Your task to perform on an android device: toggle pop-ups in chrome Image 0: 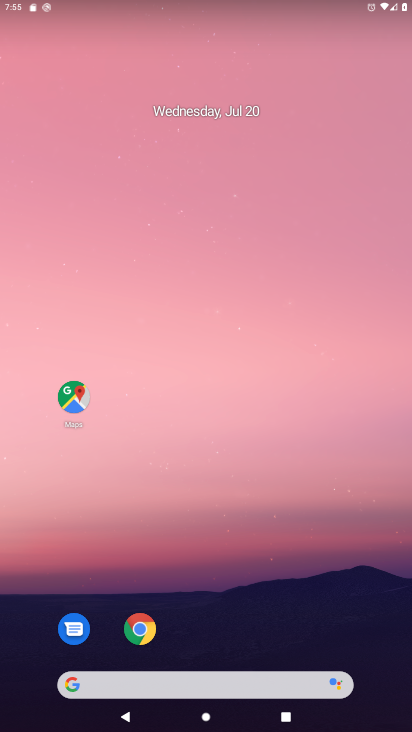
Step 0: click (146, 629)
Your task to perform on an android device: toggle pop-ups in chrome Image 1: 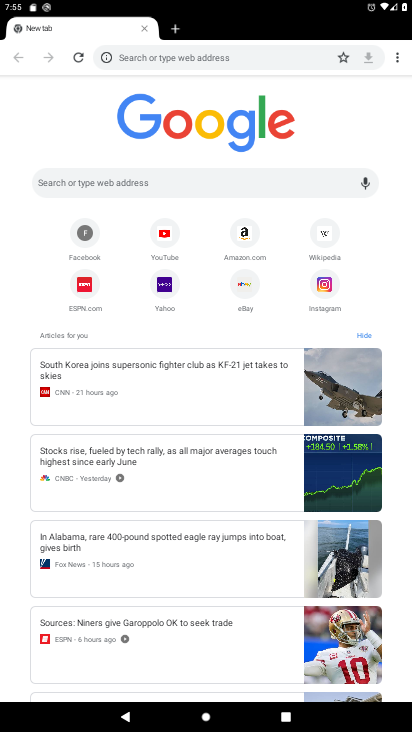
Step 1: click (398, 54)
Your task to perform on an android device: toggle pop-ups in chrome Image 2: 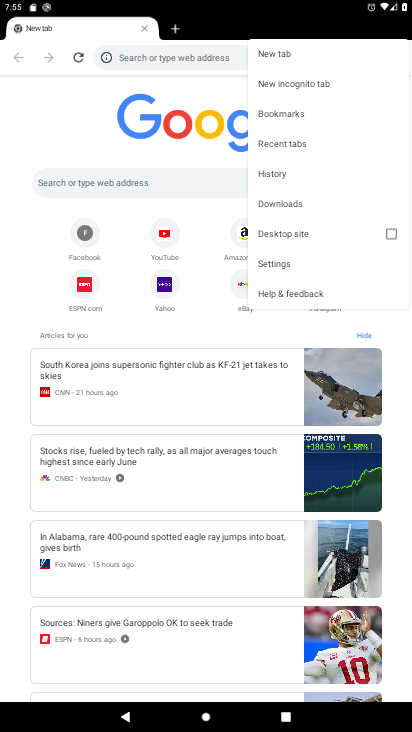
Step 2: click (272, 251)
Your task to perform on an android device: toggle pop-ups in chrome Image 3: 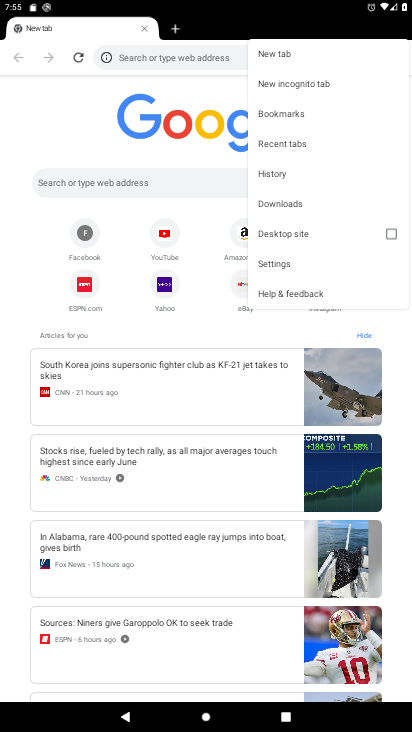
Step 3: click (272, 251)
Your task to perform on an android device: toggle pop-ups in chrome Image 4: 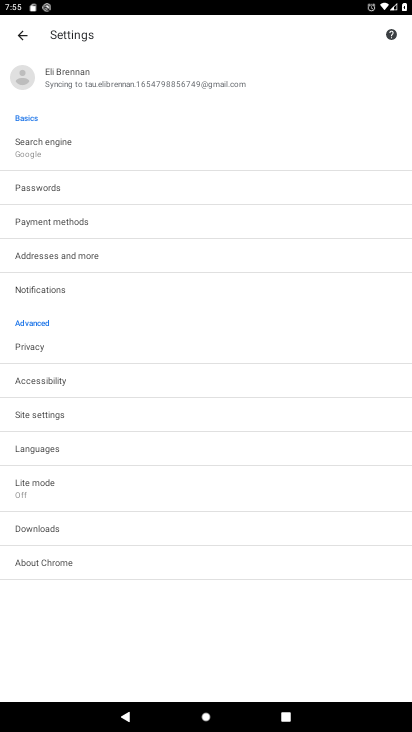
Step 4: click (67, 404)
Your task to perform on an android device: toggle pop-ups in chrome Image 5: 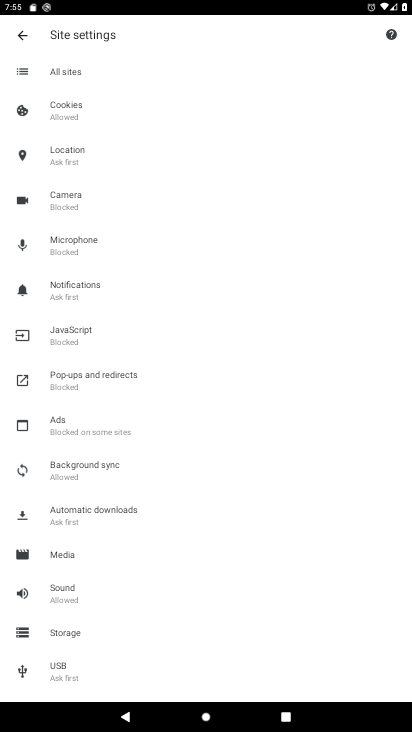
Step 5: click (114, 384)
Your task to perform on an android device: toggle pop-ups in chrome Image 6: 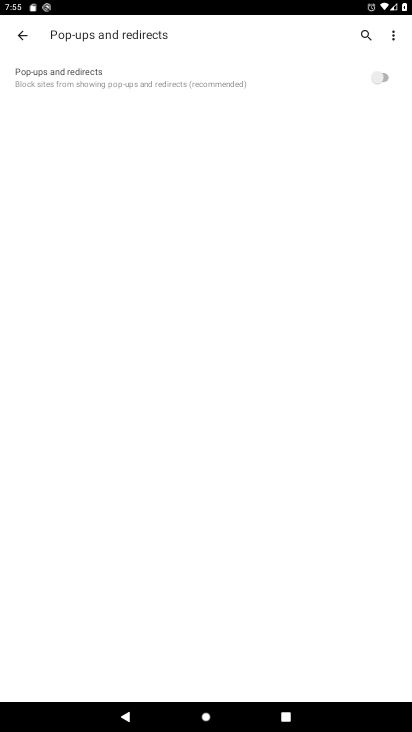
Step 6: click (384, 77)
Your task to perform on an android device: toggle pop-ups in chrome Image 7: 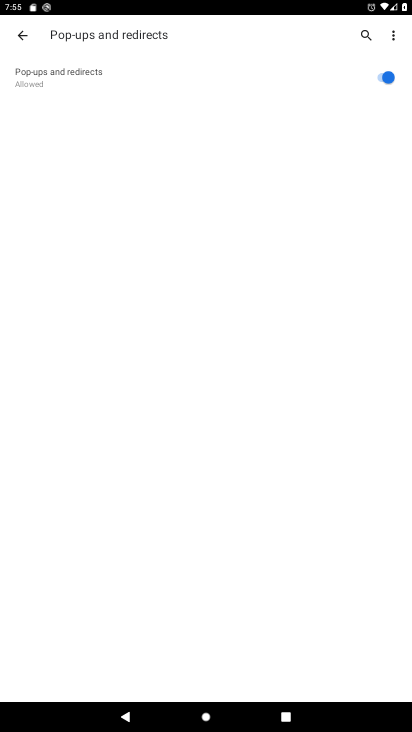
Step 7: task complete